Your task to perform on an android device: Clear the shopping cart on target.com. Search for "alienware area 51" on target.com, select the first entry, and add it to the cart. Image 0: 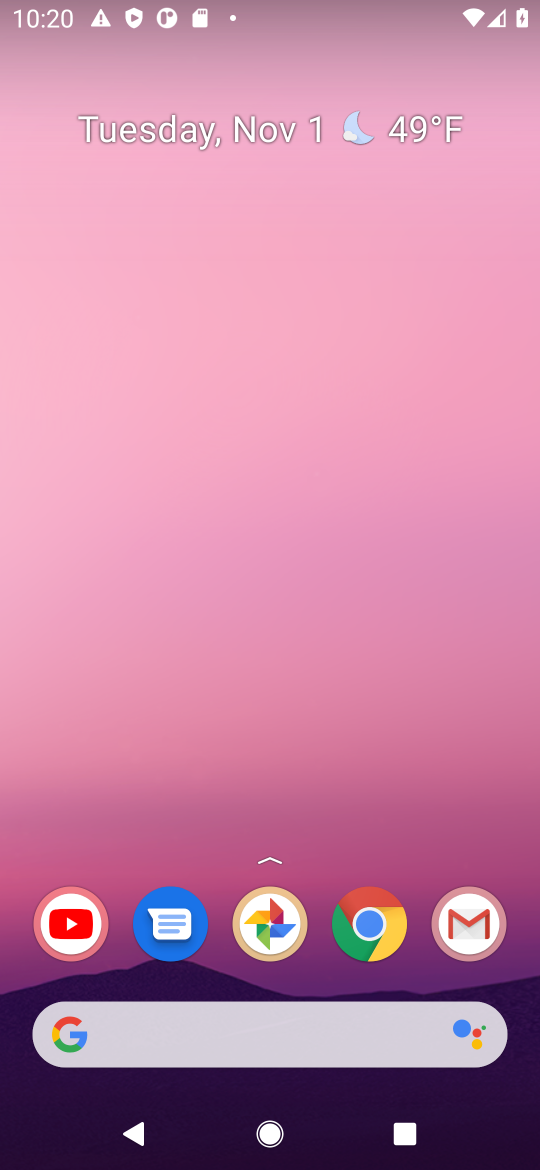
Step 0: click (374, 938)
Your task to perform on an android device: Clear the shopping cart on target.com. Search for "alienware area 51" on target.com, select the first entry, and add it to the cart. Image 1: 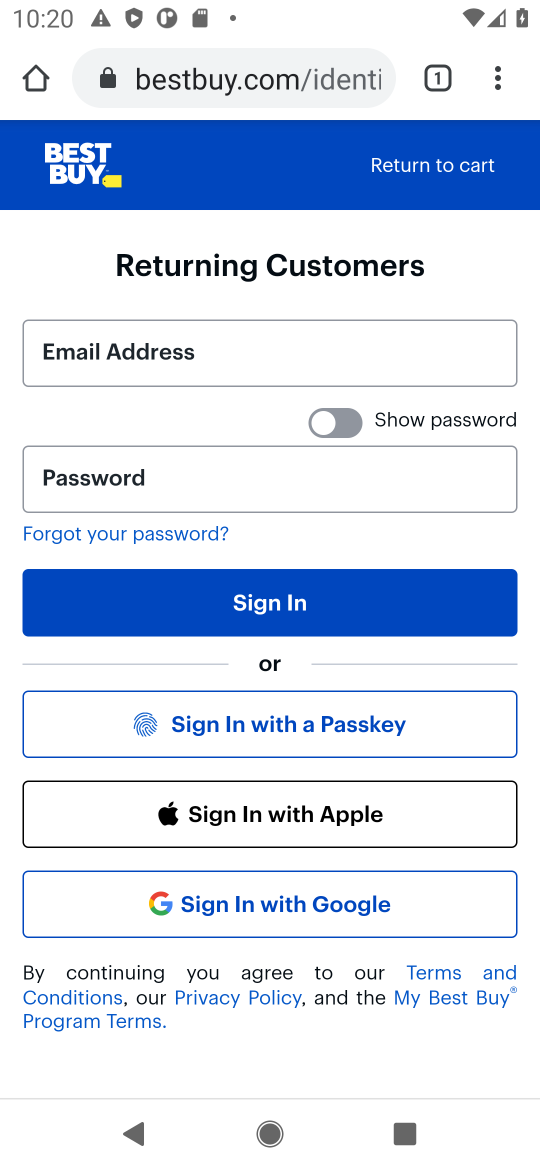
Step 1: click (303, 79)
Your task to perform on an android device: Clear the shopping cart on target.com. Search for "alienware area 51" on target.com, select the first entry, and add it to the cart. Image 2: 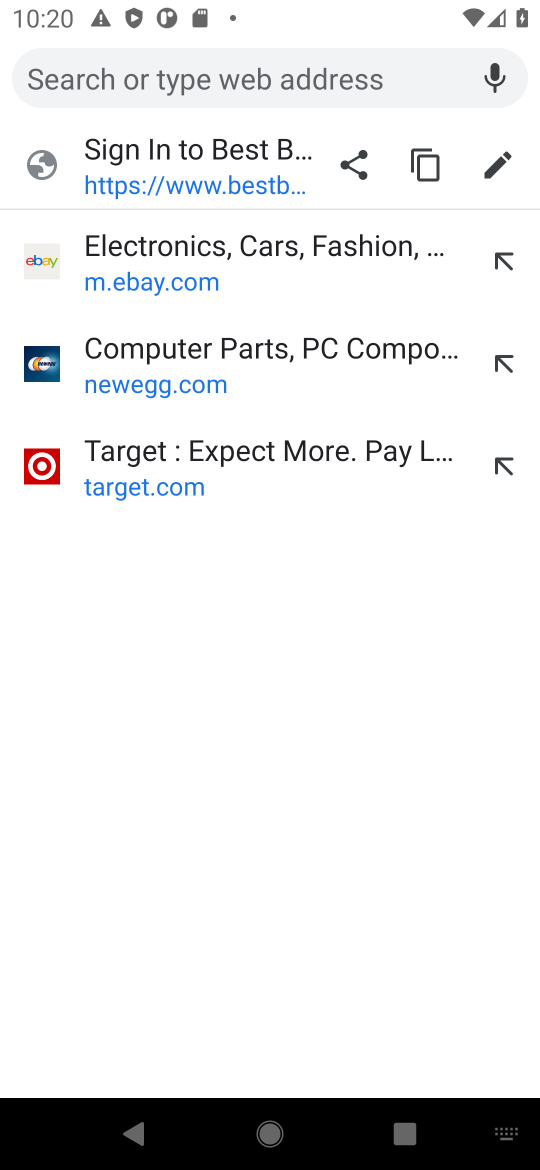
Step 2: type "target"
Your task to perform on an android device: Clear the shopping cart on target.com. Search for "alienware area 51" on target.com, select the first entry, and add it to the cart. Image 3: 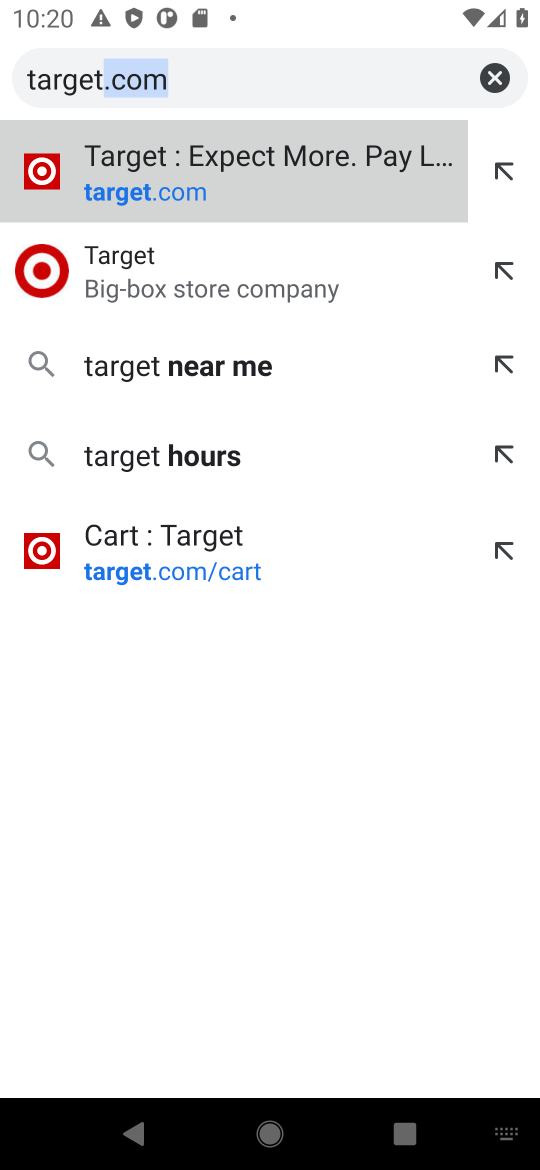
Step 3: click (293, 168)
Your task to perform on an android device: Clear the shopping cart on target.com. Search for "alienware area 51" on target.com, select the first entry, and add it to the cart. Image 4: 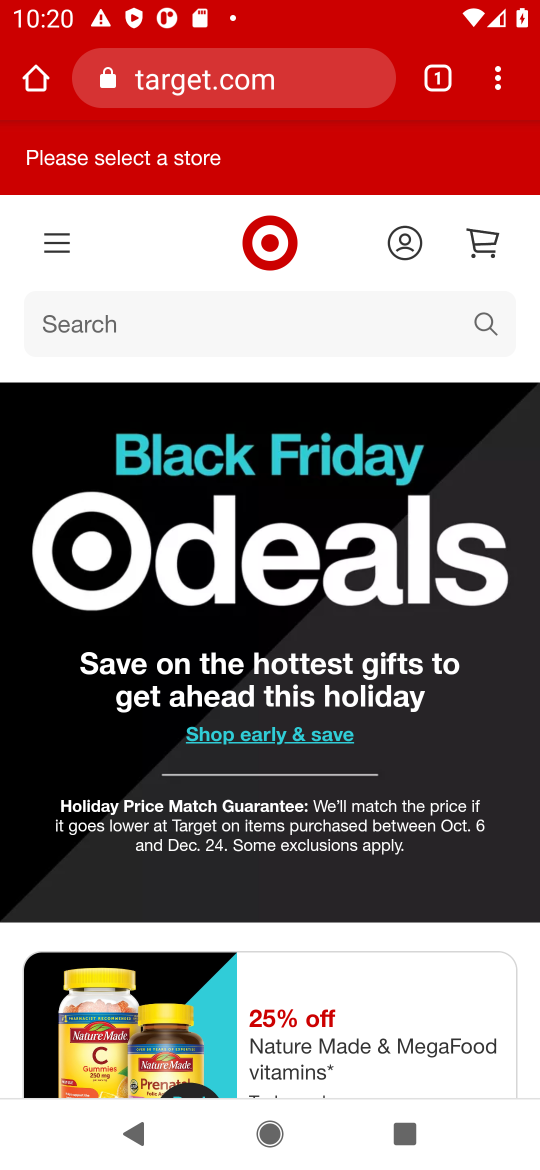
Step 4: click (481, 252)
Your task to perform on an android device: Clear the shopping cart on target.com. Search for "alienware area 51" on target.com, select the first entry, and add it to the cart. Image 5: 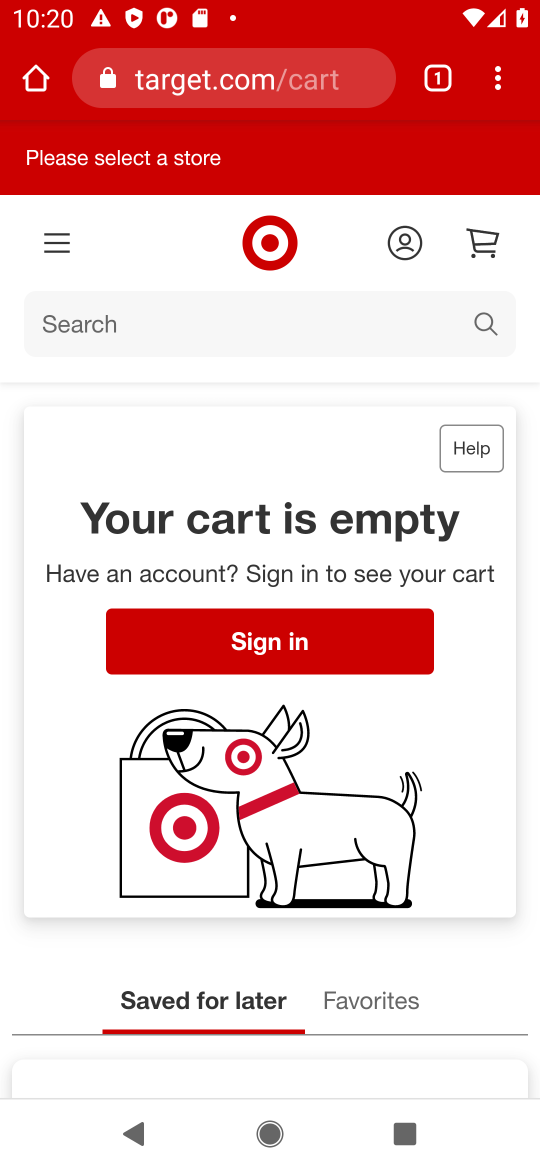
Step 5: click (326, 338)
Your task to perform on an android device: Clear the shopping cart on target.com. Search for "alienware area 51" on target.com, select the first entry, and add it to the cart. Image 6: 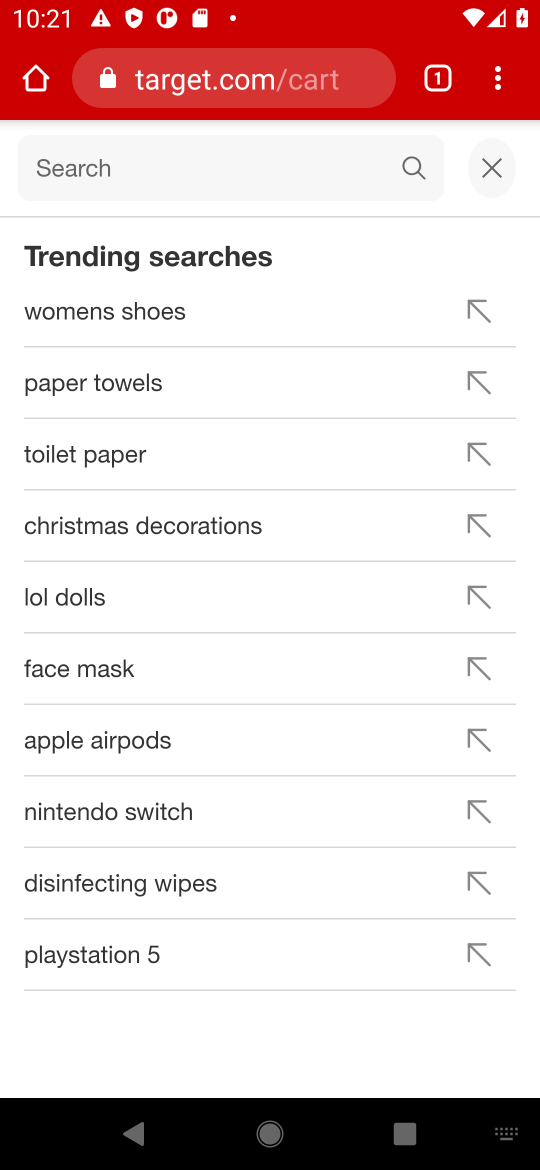
Step 6: type "alienware area 51"
Your task to perform on an android device: Clear the shopping cart on target.com. Search for "alienware area 51" on target.com, select the first entry, and add it to the cart. Image 7: 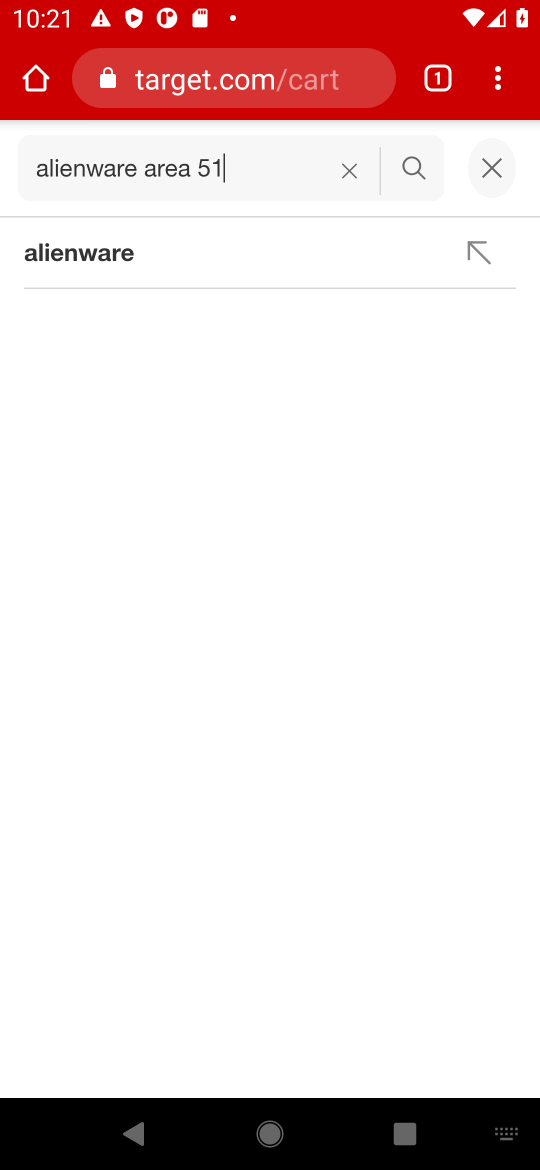
Step 7: click (414, 168)
Your task to perform on an android device: Clear the shopping cart on target.com. Search for "alienware area 51" on target.com, select the first entry, and add it to the cart. Image 8: 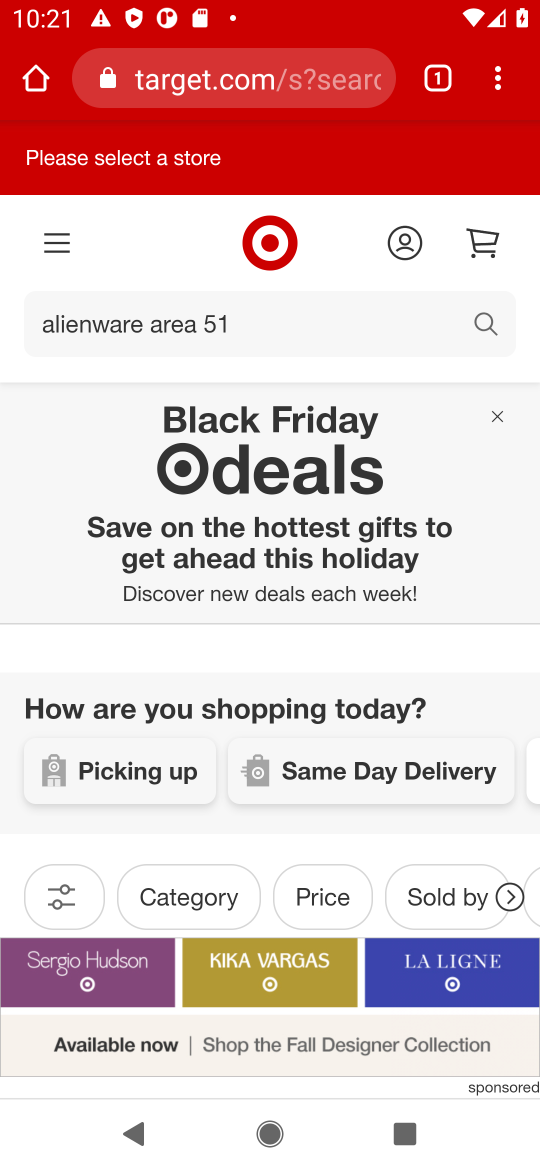
Step 8: drag from (280, 830) to (296, 584)
Your task to perform on an android device: Clear the shopping cart on target.com. Search for "alienware area 51" on target.com, select the first entry, and add it to the cart. Image 9: 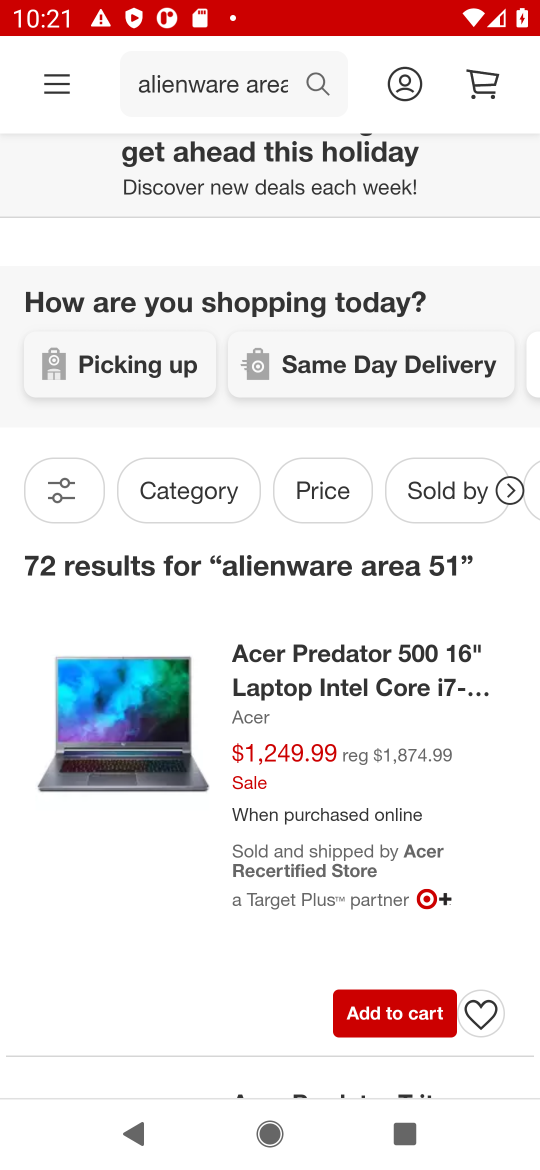
Step 9: drag from (310, 429) to (236, 773)
Your task to perform on an android device: Clear the shopping cart on target.com. Search for "alienware area 51" on target.com, select the first entry, and add it to the cart. Image 10: 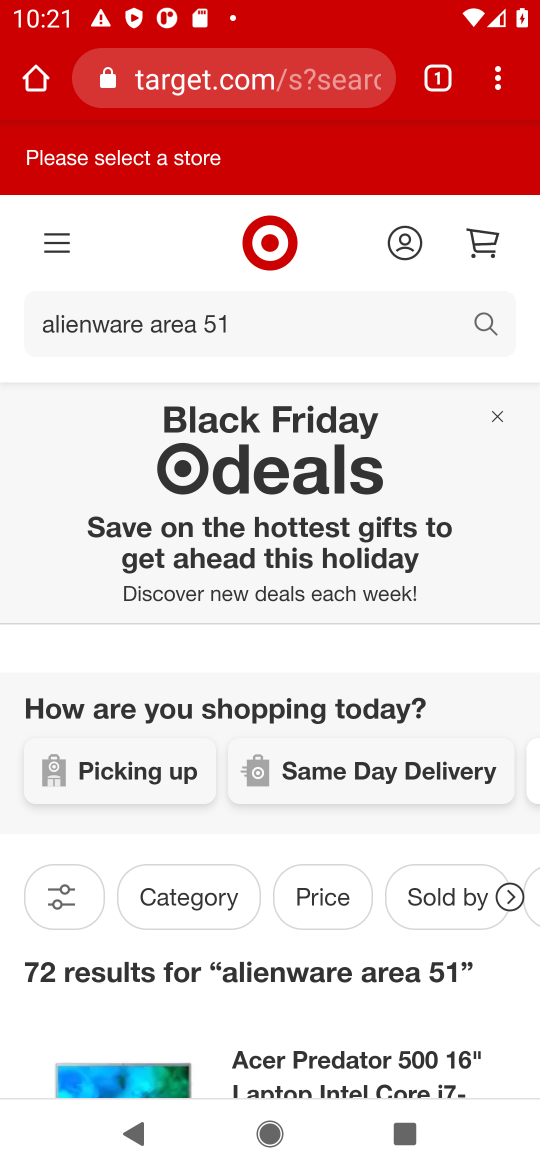
Step 10: drag from (291, 1019) to (266, 737)
Your task to perform on an android device: Clear the shopping cart on target.com. Search for "alienware area 51" on target.com, select the first entry, and add it to the cart. Image 11: 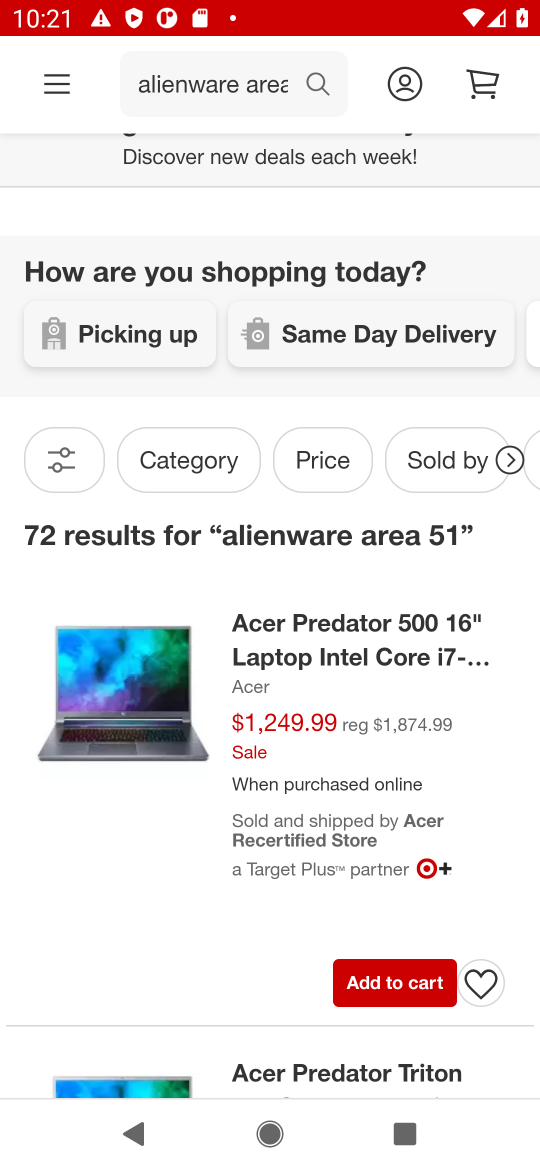
Step 11: click (301, 656)
Your task to perform on an android device: Clear the shopping cart on target.com. Search for "alienware area 51" on target.com, select the first entry, and add it to the cart. Image 12: 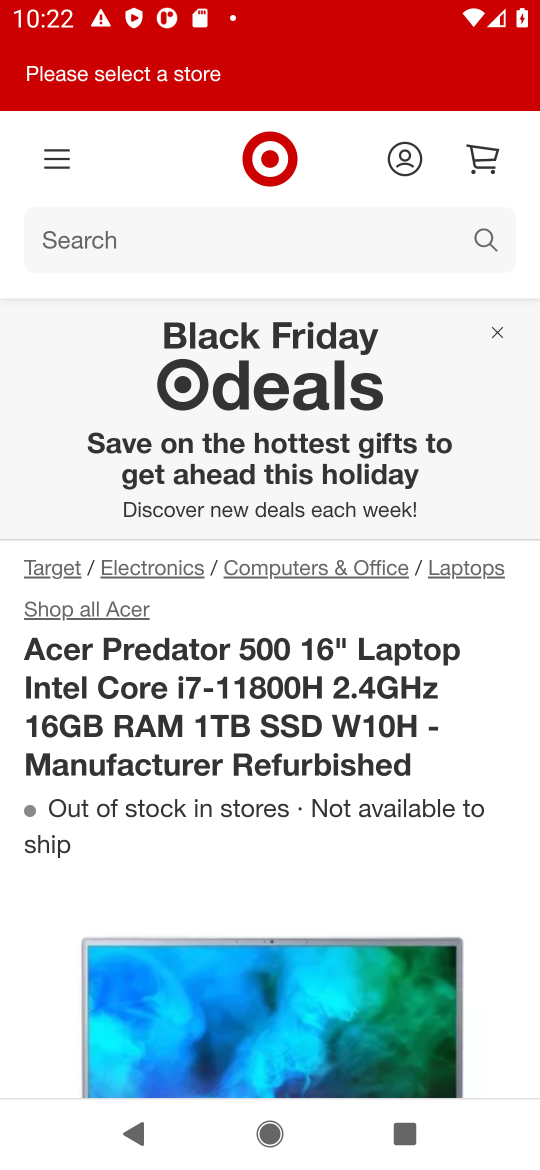
Step 12: drag from (275, 864) to (238, 578)
Your task to perform on an android device: Clear the shopping cart on target.com. Search for "alienware area 51" on target.com, select the first entry, and add it to the cart. Image 13: 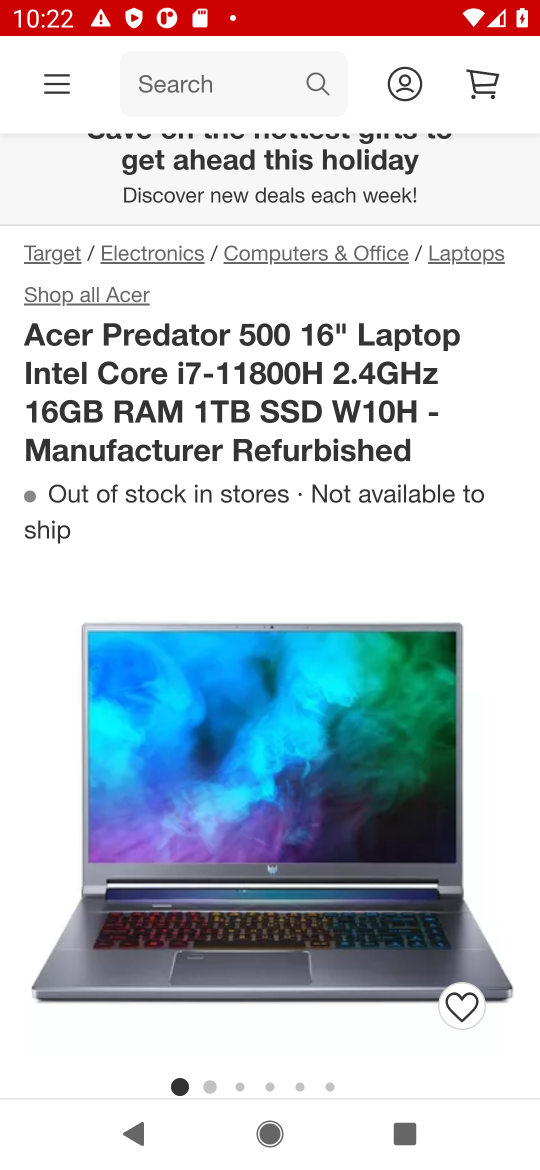
Step 13: drag from (270, 590) to (246, 427)
Your task to perform on an android device: Clear the shopping cart on target.com. Search for "alienware area 51" on target.com, select the first entry, and add it to the cart. Image 14: 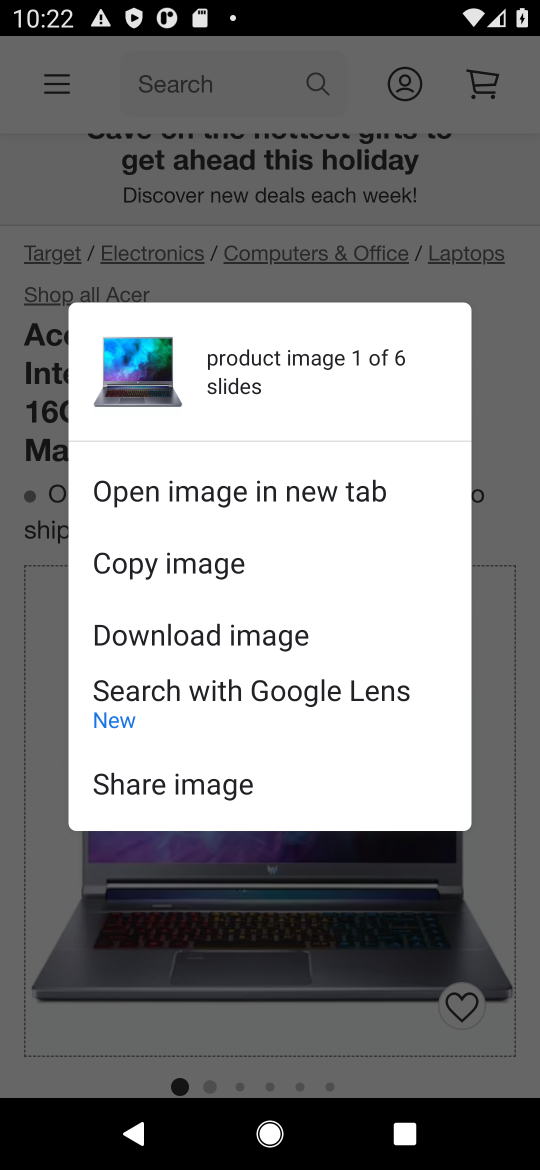
Step 14: click (17, 797)
Your task to perform on an android device: Clear the shopping cart on target.com. Search for "alienware area 51" on target.com, select the first entry, and add it to the cart. Image 15: 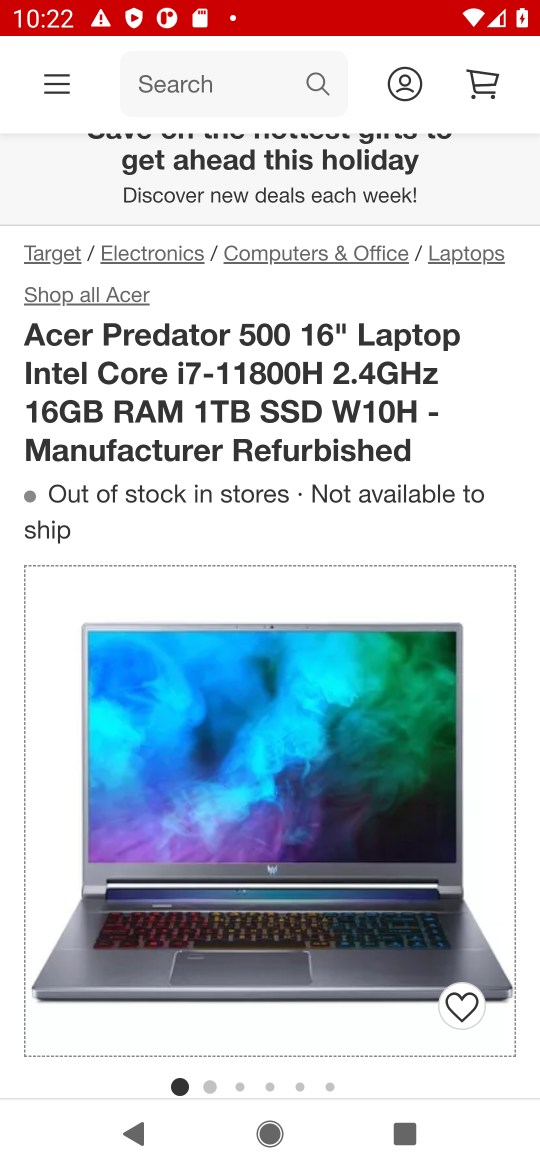
Step 15: drag from (60, 1057) to (102, 335)
Your task to perform on an android device: Clear the shopping cart on target.com. Search for "alienware area 51" on target.com, select the first entry, and add it to the cart. Image 16: 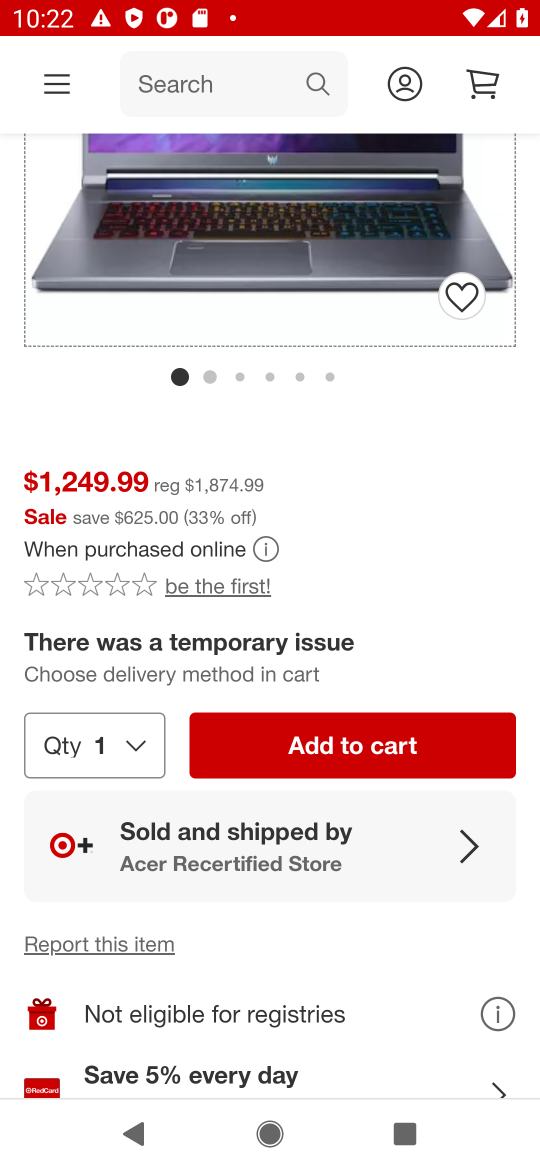
Step 16: click (348, 756)
Your task to perform on an android device: Clear the shopping cart on target.com. Search for "alienware area 51" on target.com, select the first entry, and add it to the cart. Image 17: 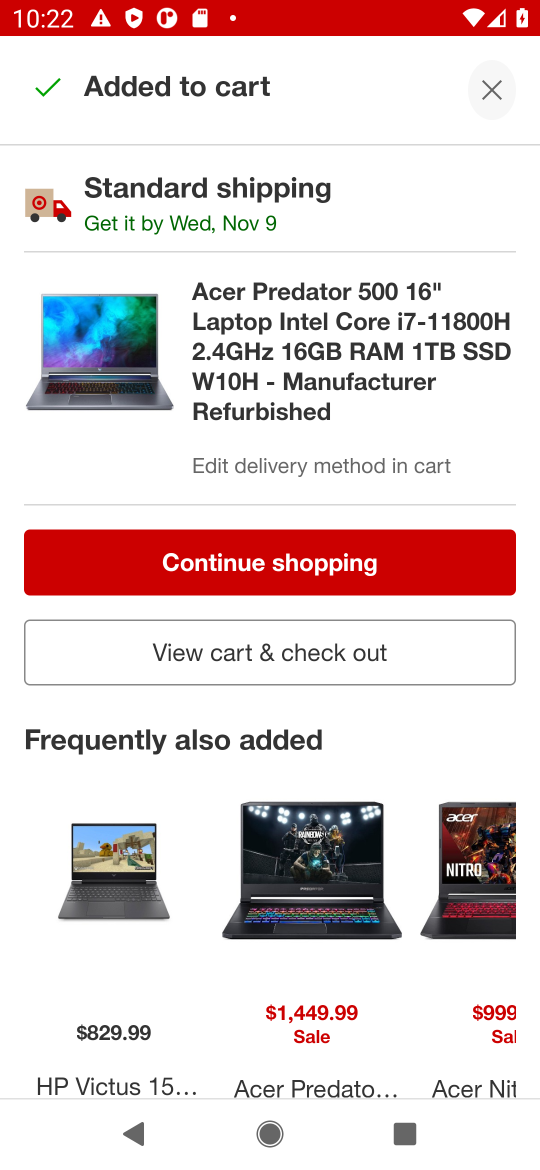
Step 17: task complete